Your task to perform on an android device: allow notifications from all sites in the chrome app Image 0: 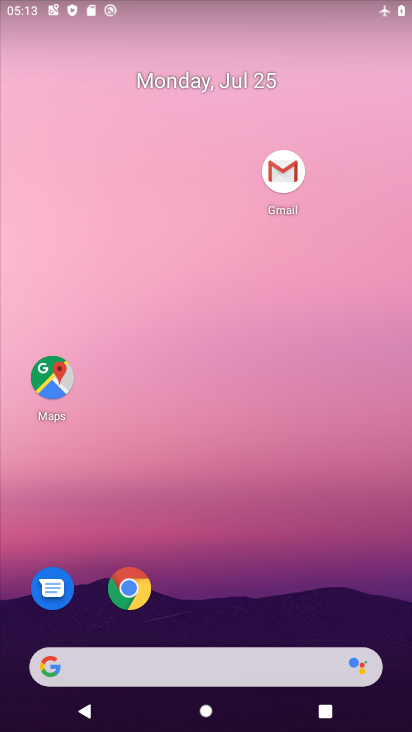
Step 0: drag from (311, 538) to (274, 58)
Your task to perform on an android device: allow notifications from all sites in the chrome app Image 1: 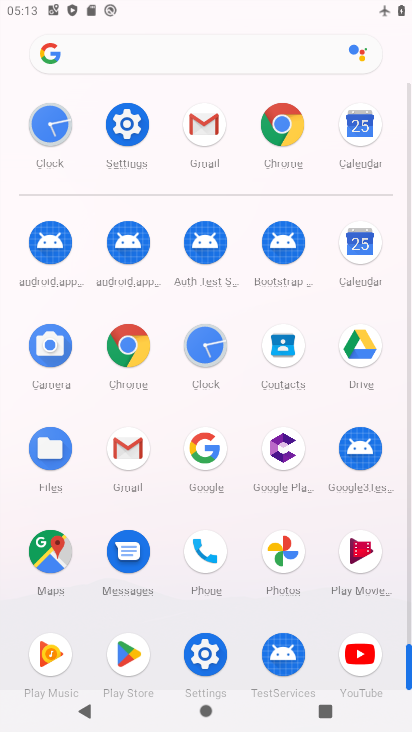
Step 1: click (277, 125)
Your task to perform on an android device: allow notifications from all sites in the chrome app Image 2: 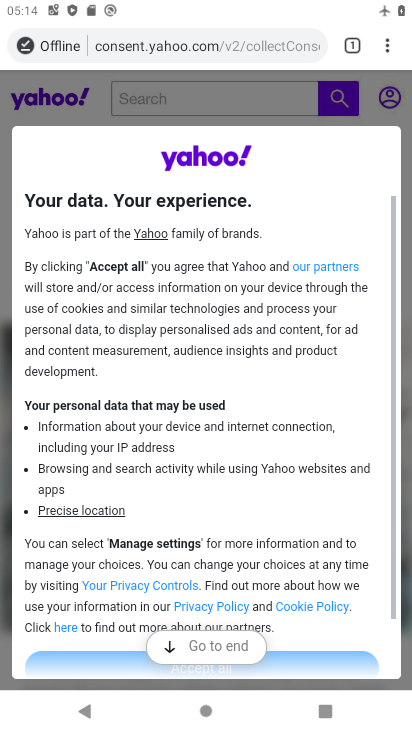
Step 2: drag from (389, 46) to (257, 496)
Your task to perform on an android device: allow notifications from all sites in the chrome app Image 3: 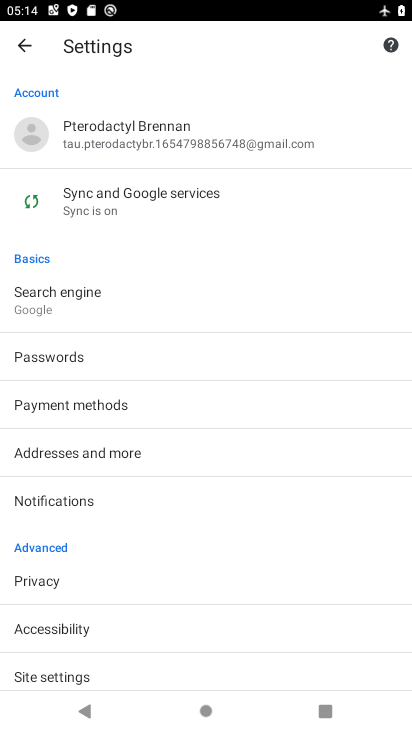
Step 3: drag from (231, 611) to (250, 276)
Your task to perform on an android device: allow notifications from all sites in the chrome app Image 4: 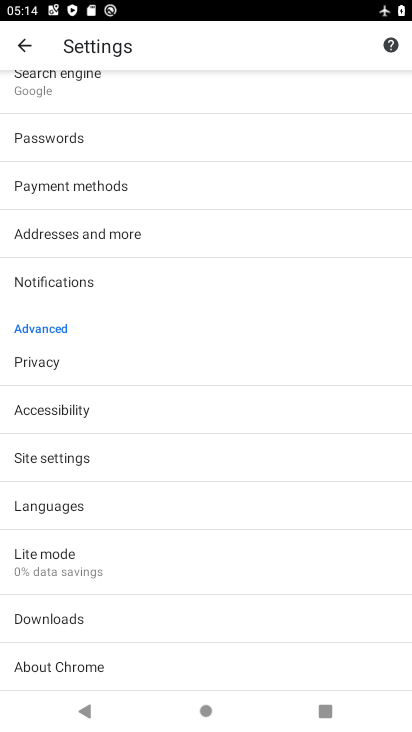
Step 4: click (99, 280)
Your task to perform on an android device: allow notifications from all sites in the chrome app Image 5: 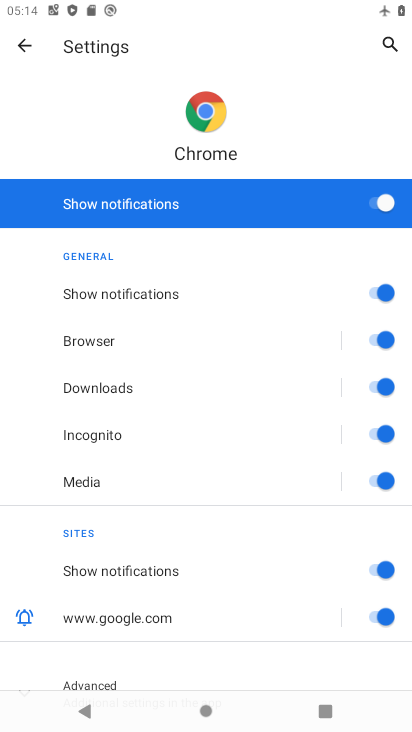
Step 5: task complete